Your task to perform on an android device: all mails in gmail Image 0: 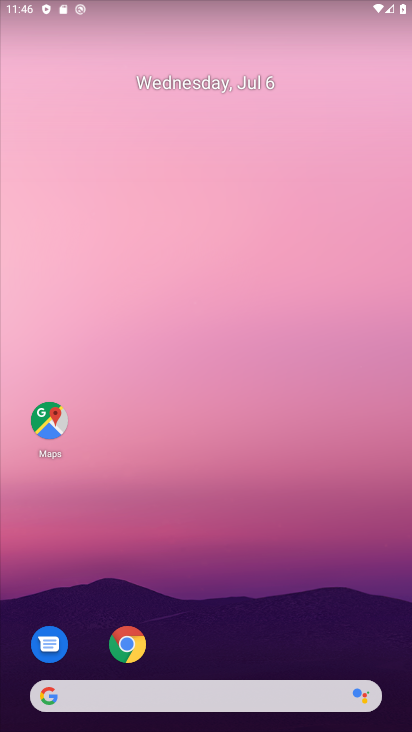
Step 0: drag from (203, 702) to (129, 22)
Your task to perform on an android device: all mails in gmail Image 1: 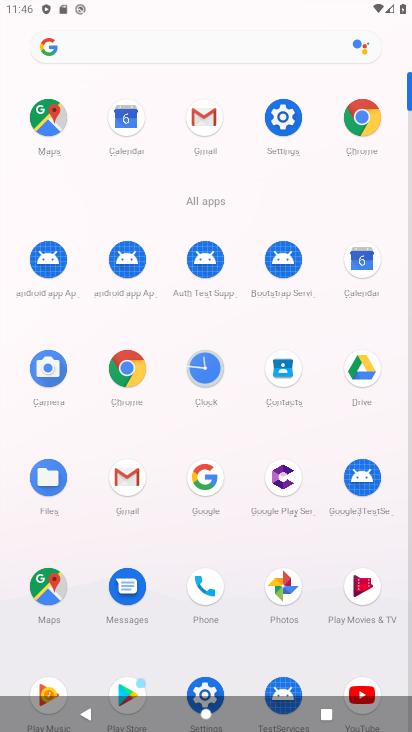
Step 1: click (220, 98)
Your task to perform on an android device: all mails in gmail Image 2: 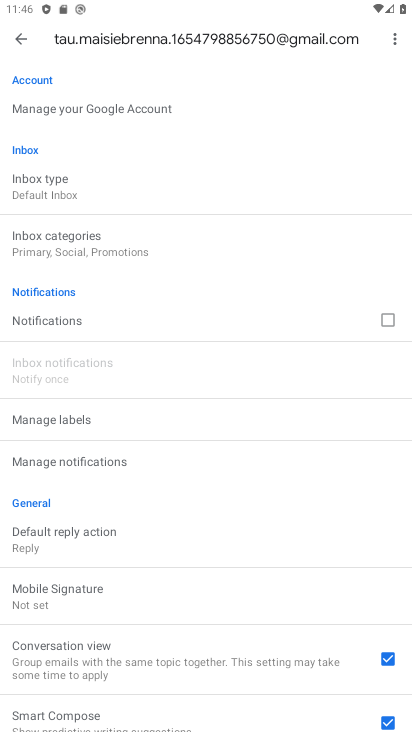
Step 2: click (19, 42)
Your task to perform on an android device: all mails in gmail Image 3: 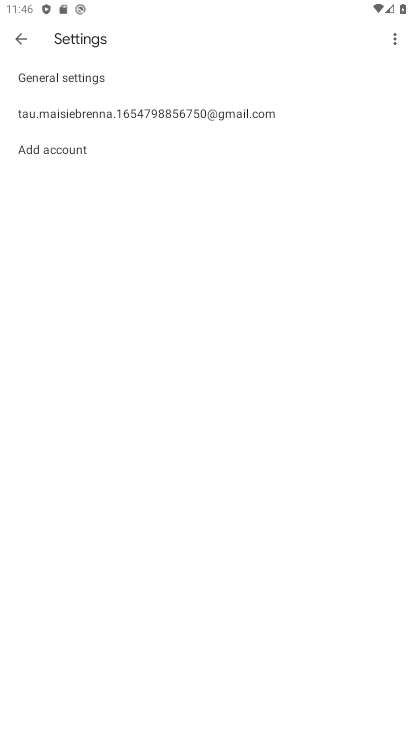
Step 3: click (20, 40)
Your task to perform on an android device: all mails in gmail Image 4: 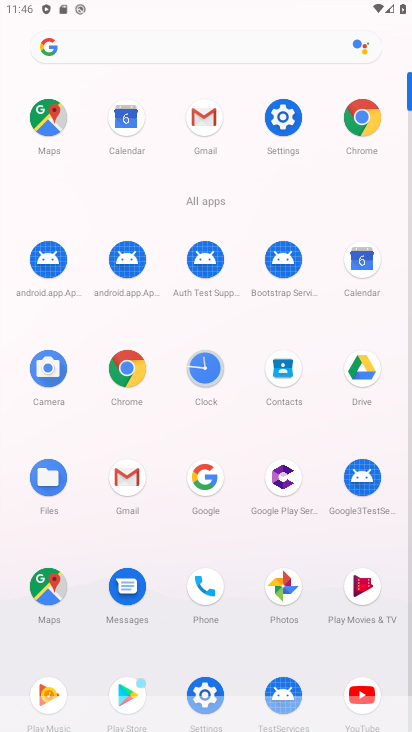
Step 4: click (198, 132)
Your task to perform on an android device: all mails in gmail Image 5: 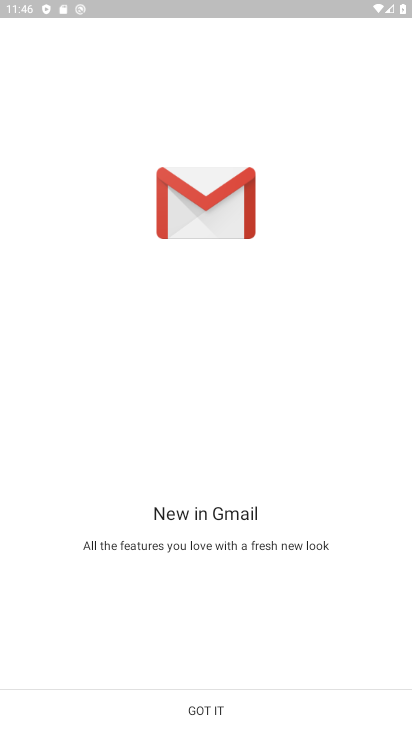
Step 5: click (214, 707)
Your task to perform on an android device: all mails in gmail Image 6: 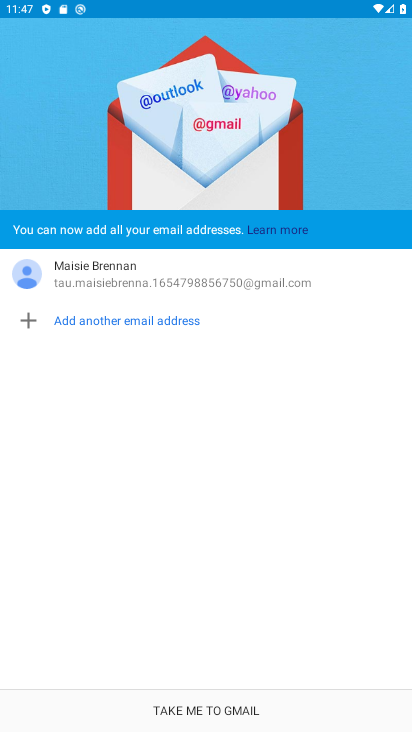
Step 6: click (225, 701)
Your task to perform on an android device: all mails in gmail Image 7: 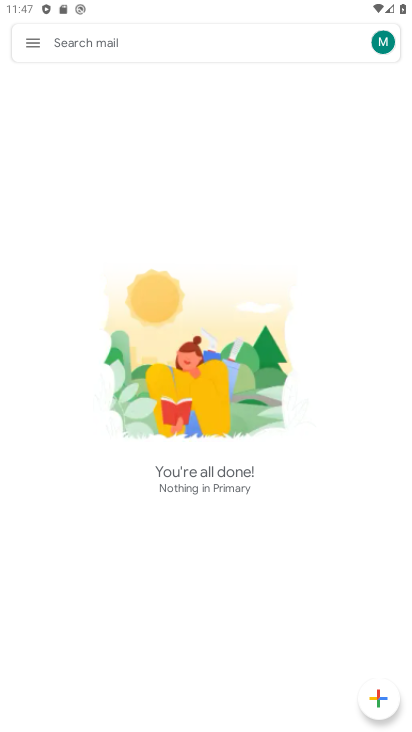
Step 7: click (27, 36)
Your task to perform on an android device: all mails in gmail Image 8: 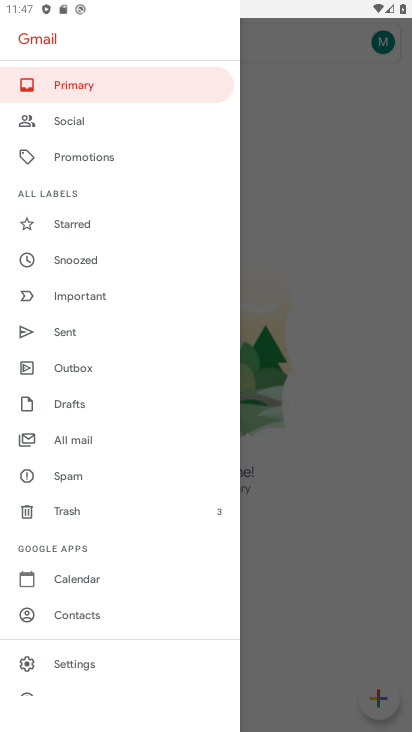
Step 8: click (102, 435)
Your task to perform on an android device: all mails in gmail Image 9: 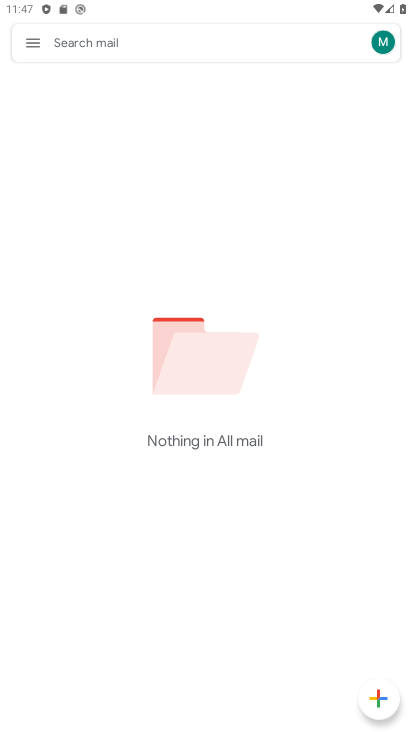
Step 9: task complete